Your task to perform on an android device: toggle javascript in the chrome app Image 0: 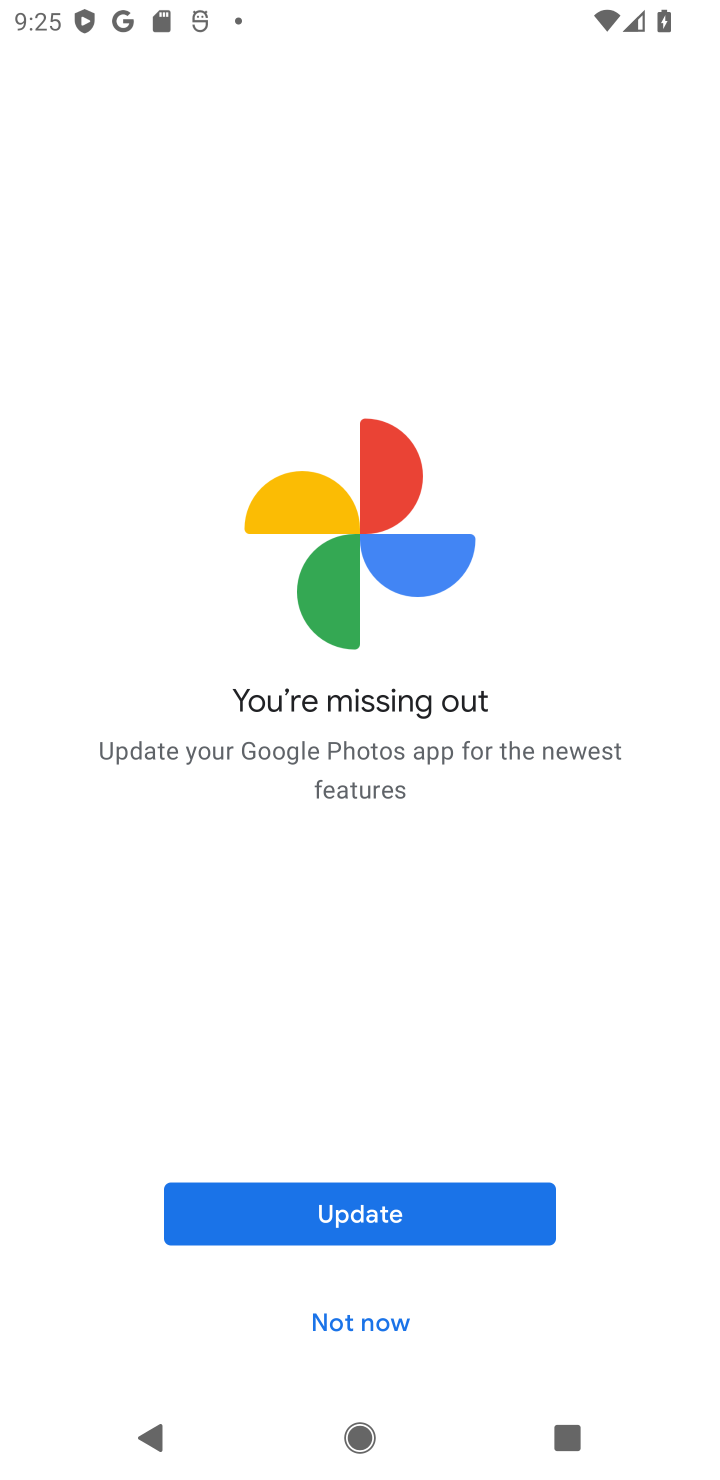
Step 0: press home button
Your task to perform on an android device: toggle javascript in the chrome app Image 1: 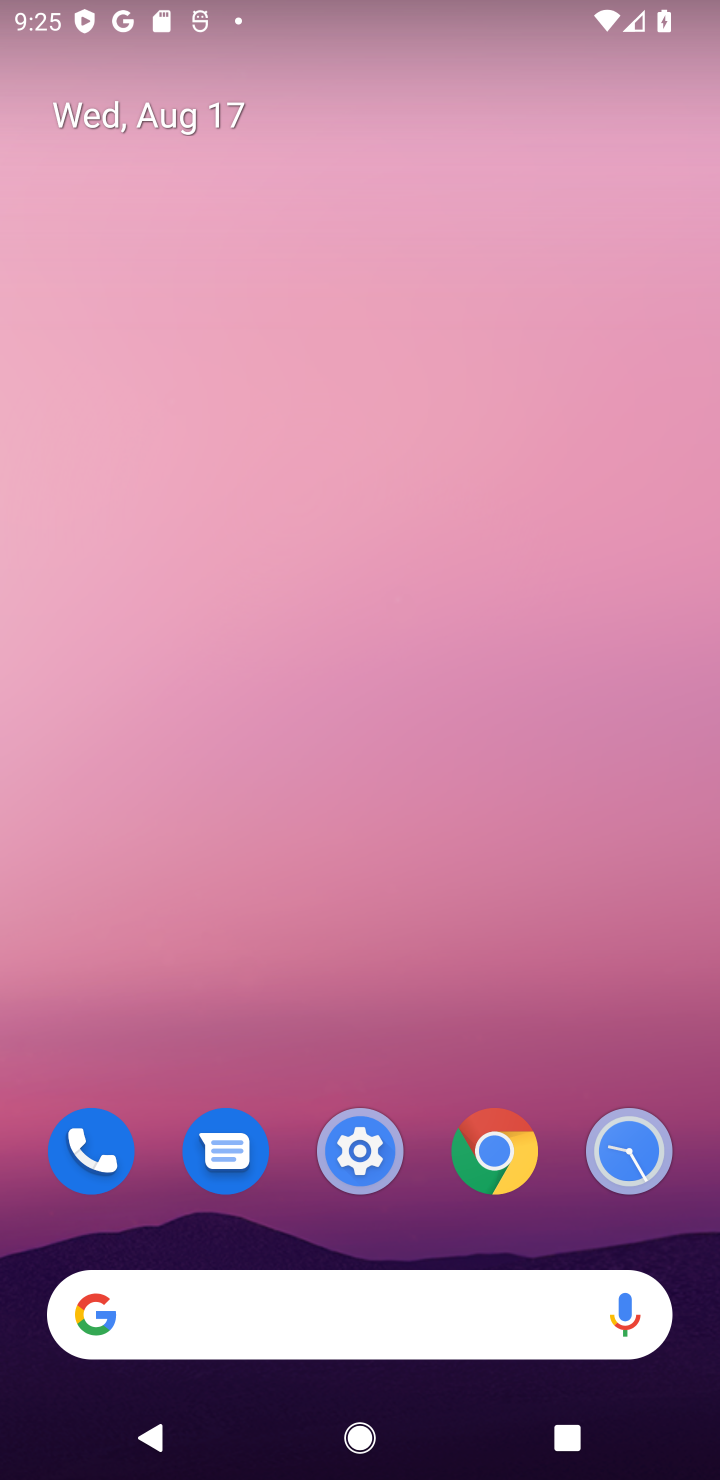
Step 1: click (491, 1153)
Your task to perform on an android device: toggle javascript in the chrome app Image 2: 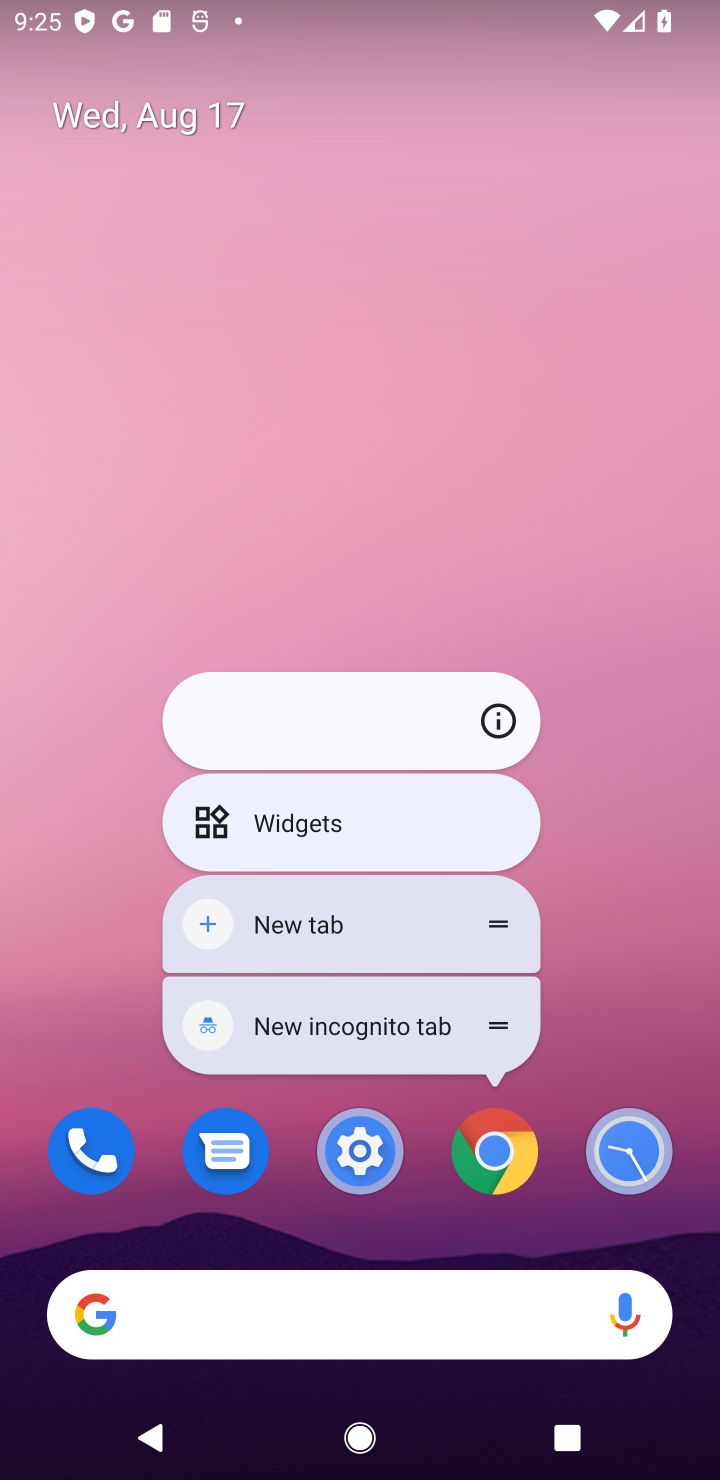
Step 2: click (497, 1160)
Your task to perform on an android device: toggle javascript in the chrome app Image 3: 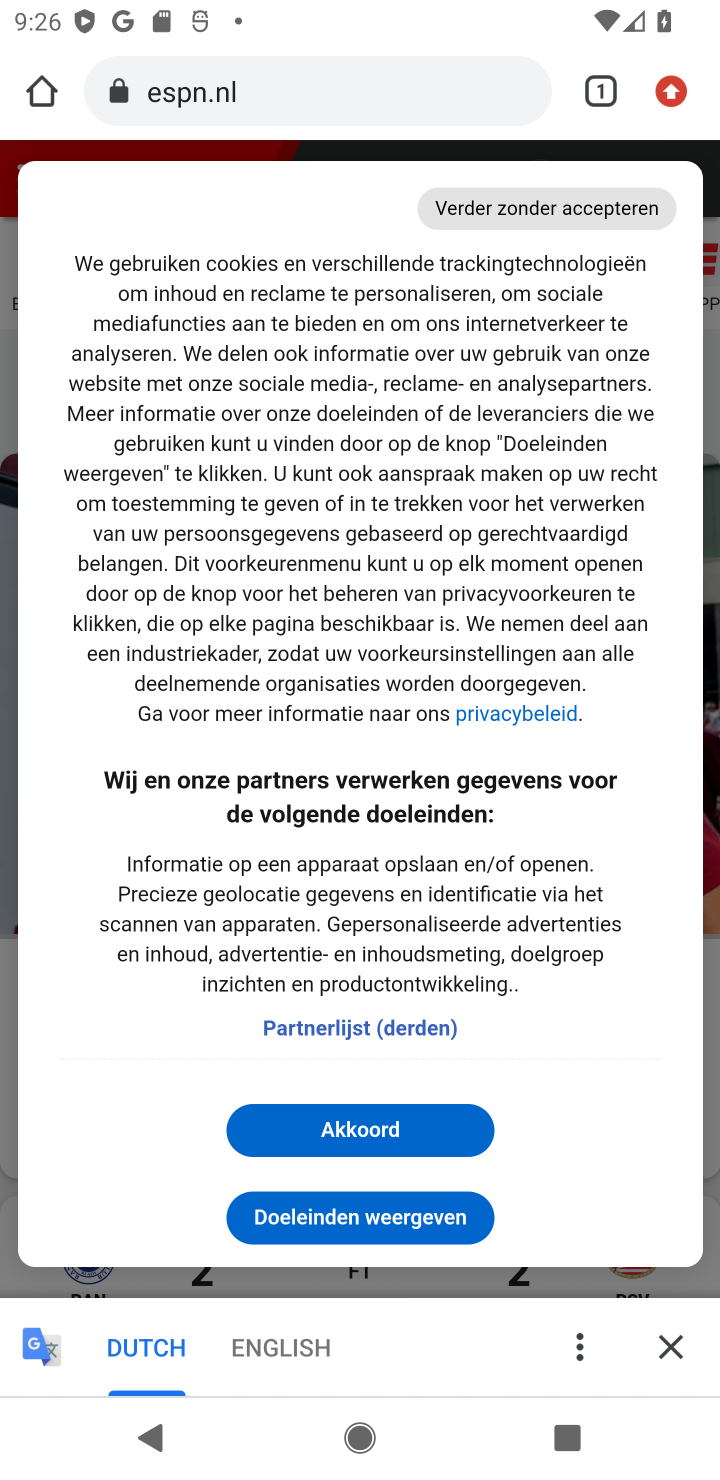
Step 3: click (671, 89)
Your task to perform on an android device: toggle javascript in the chrome app Image 4: 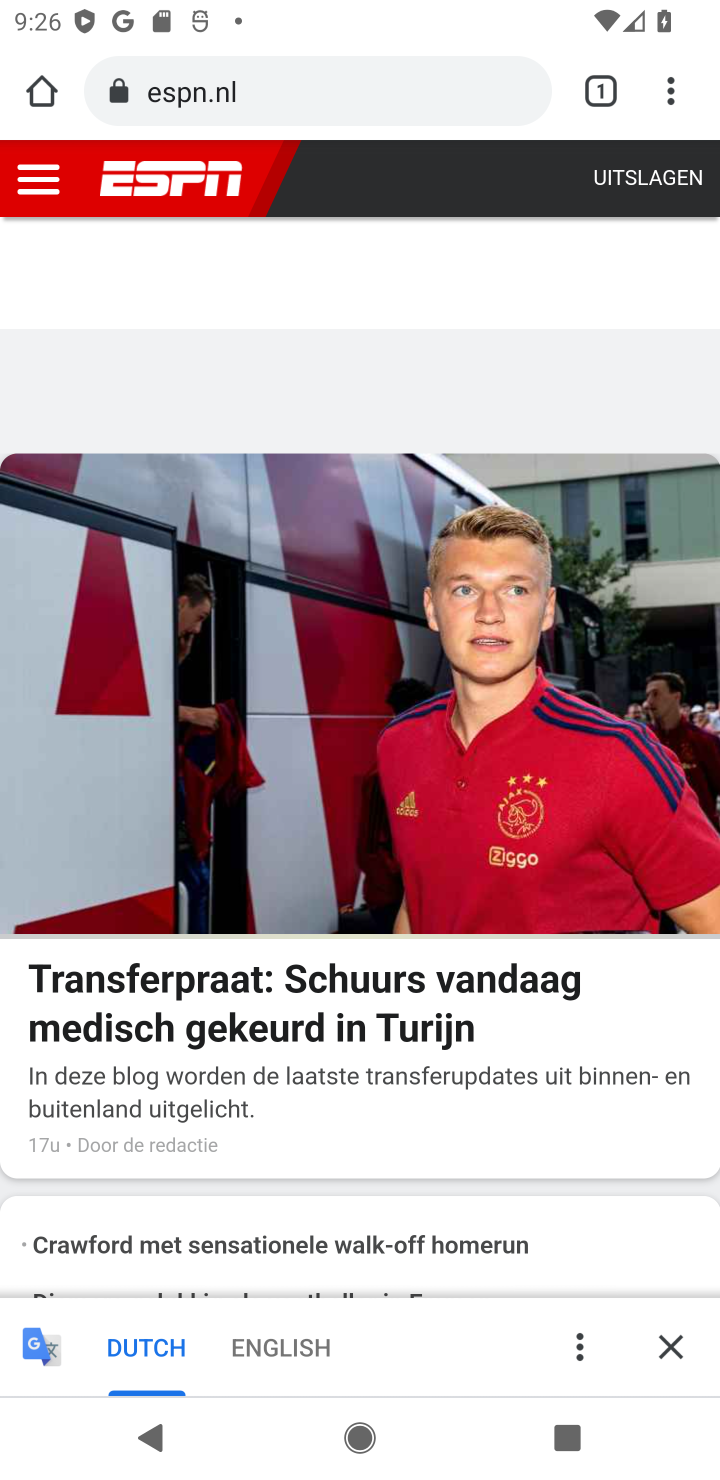
Step 4: click (671, 89)
Your task to perform on an android device: toggle javascript in the chrome app Image 5: 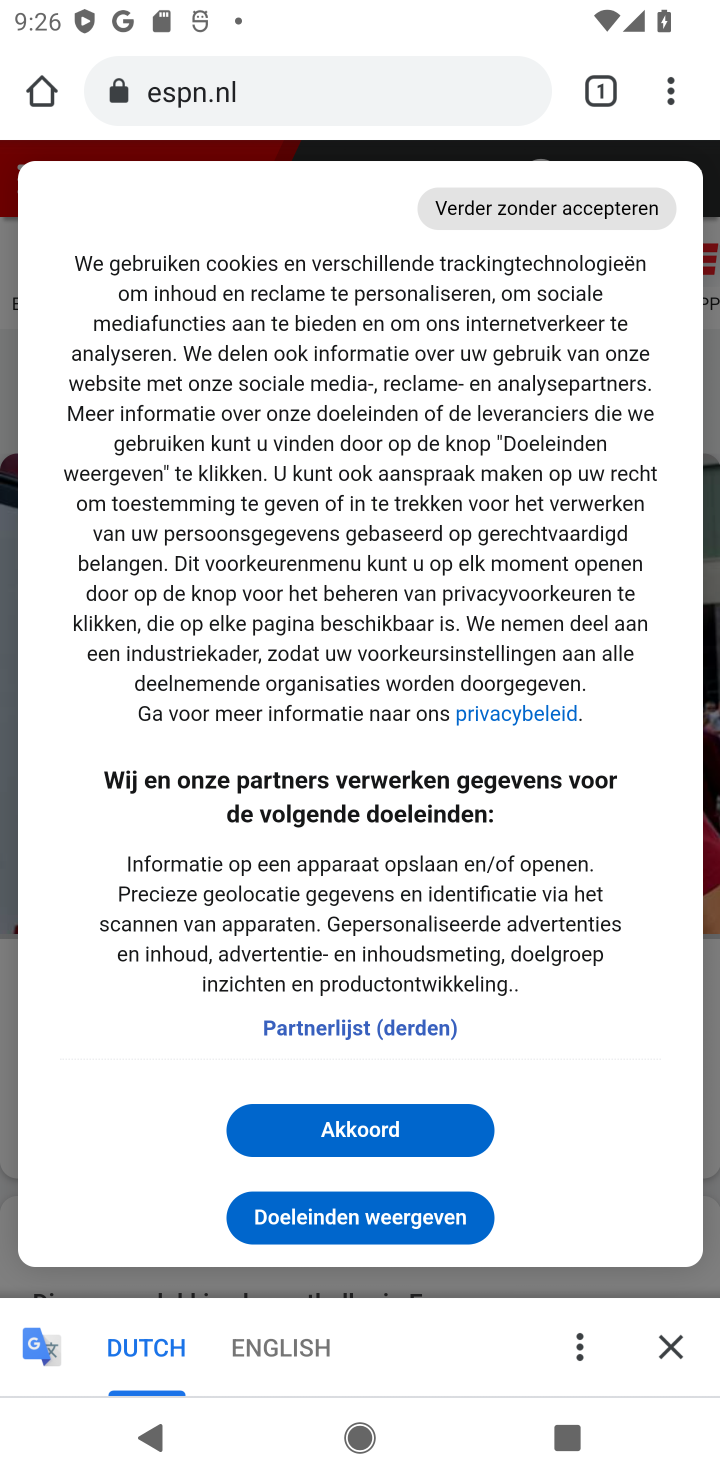
Step 5: click (671, 89)
Your task to perform on an android device: toggle javascript in the chrome app Image 6: 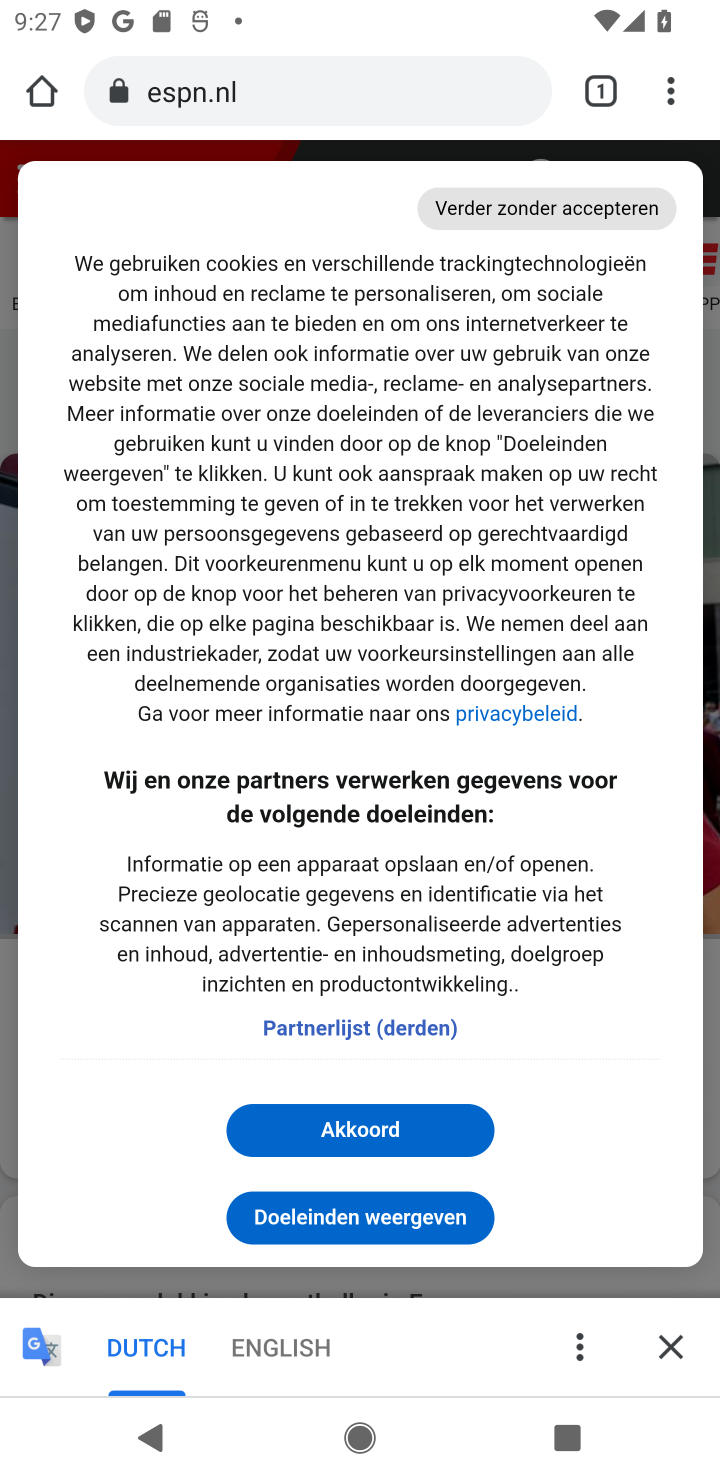
Step 6: press home button
Your task to perform on an android device: toggle javascript in the chrome app Image 7: 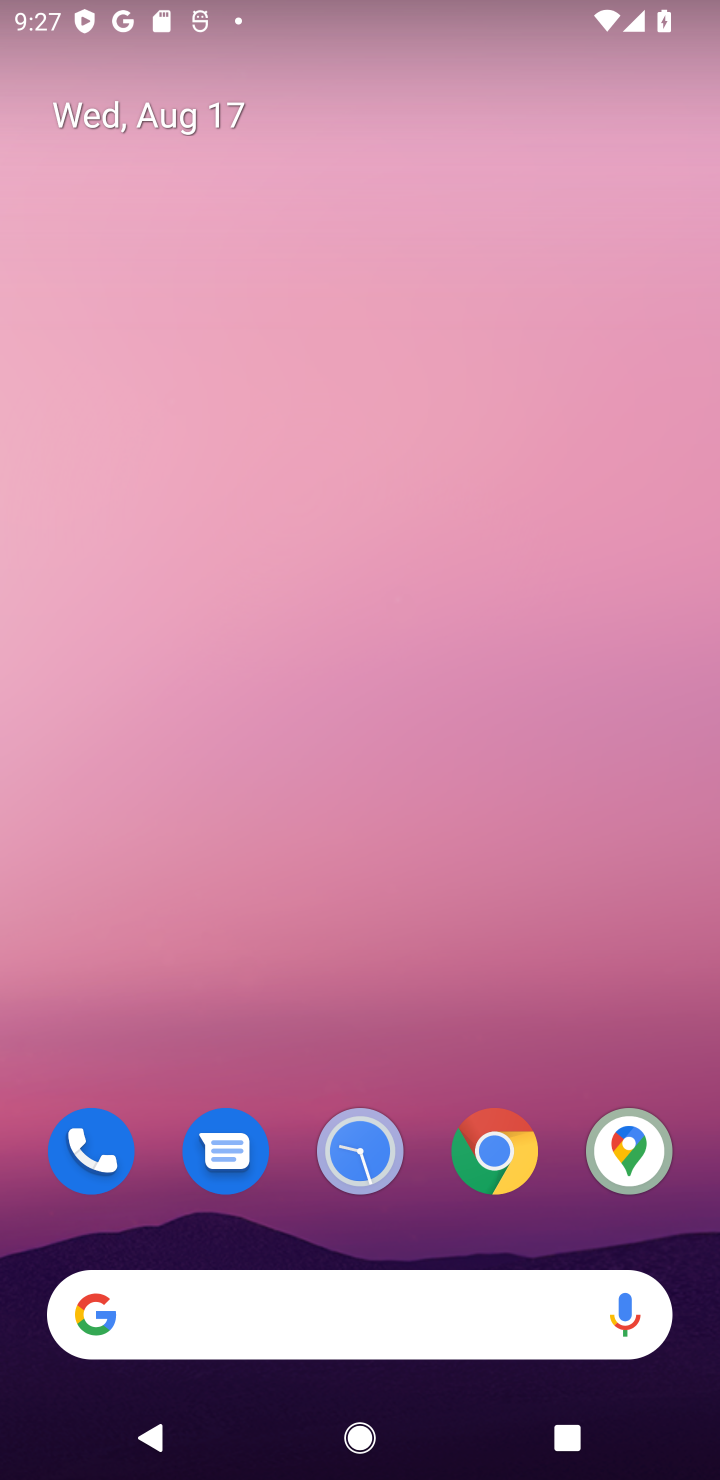
Step 7: click (493, 1150)
Your task to perform on an android device: toggle javascript in the chrome app Image 8: 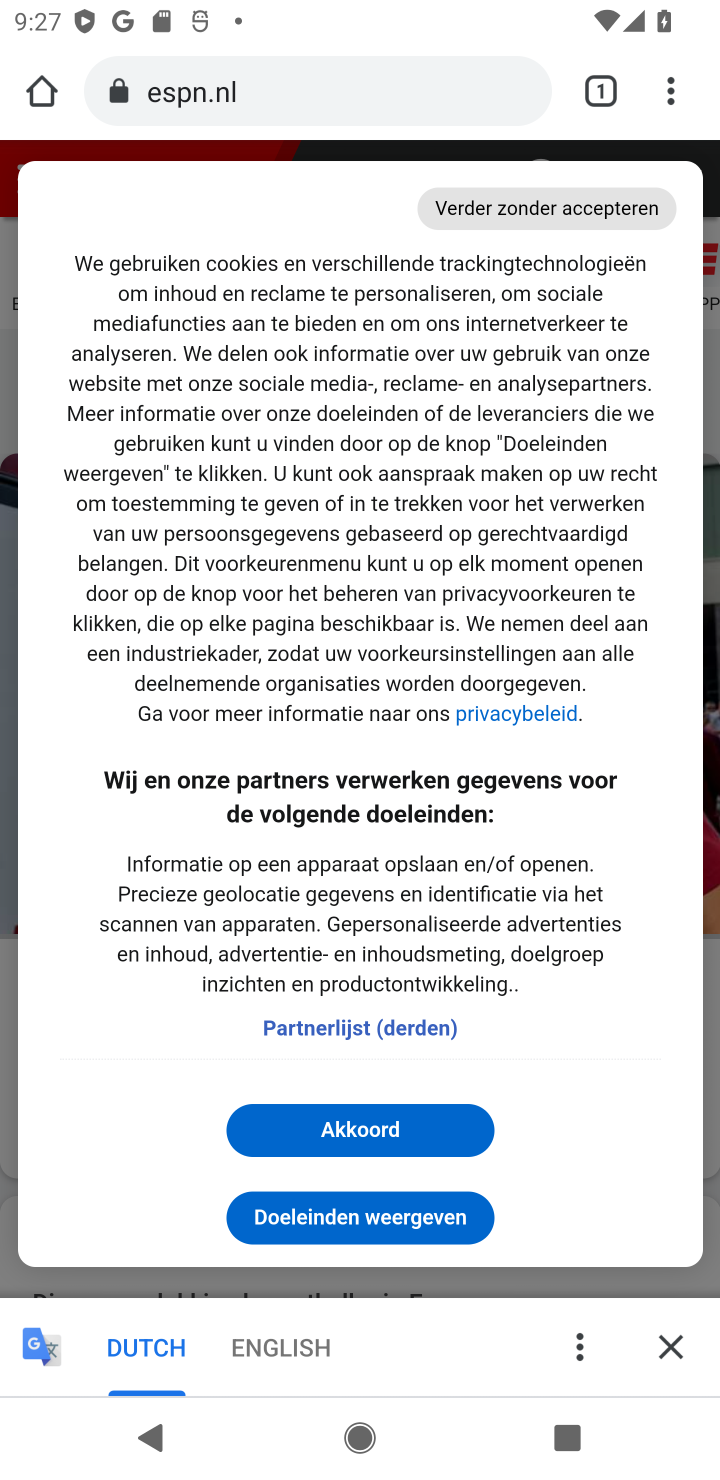
Step 8: click (666, 92)
Your task to perform on an android device: toggle javascript in the chrome app Image 9: 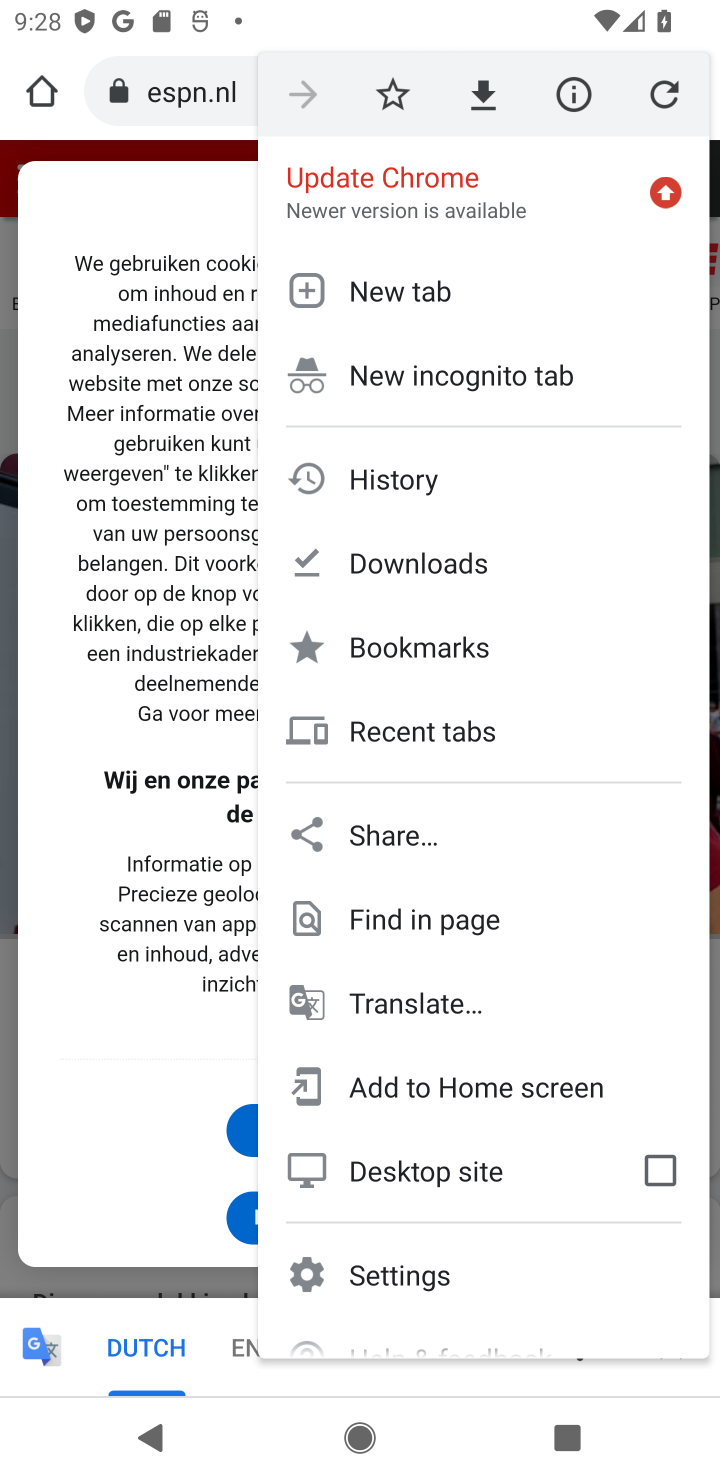
Step 9: click (386, 1268)
Your task to perform on an android device: toggle javascript in the chrome app Image 10: 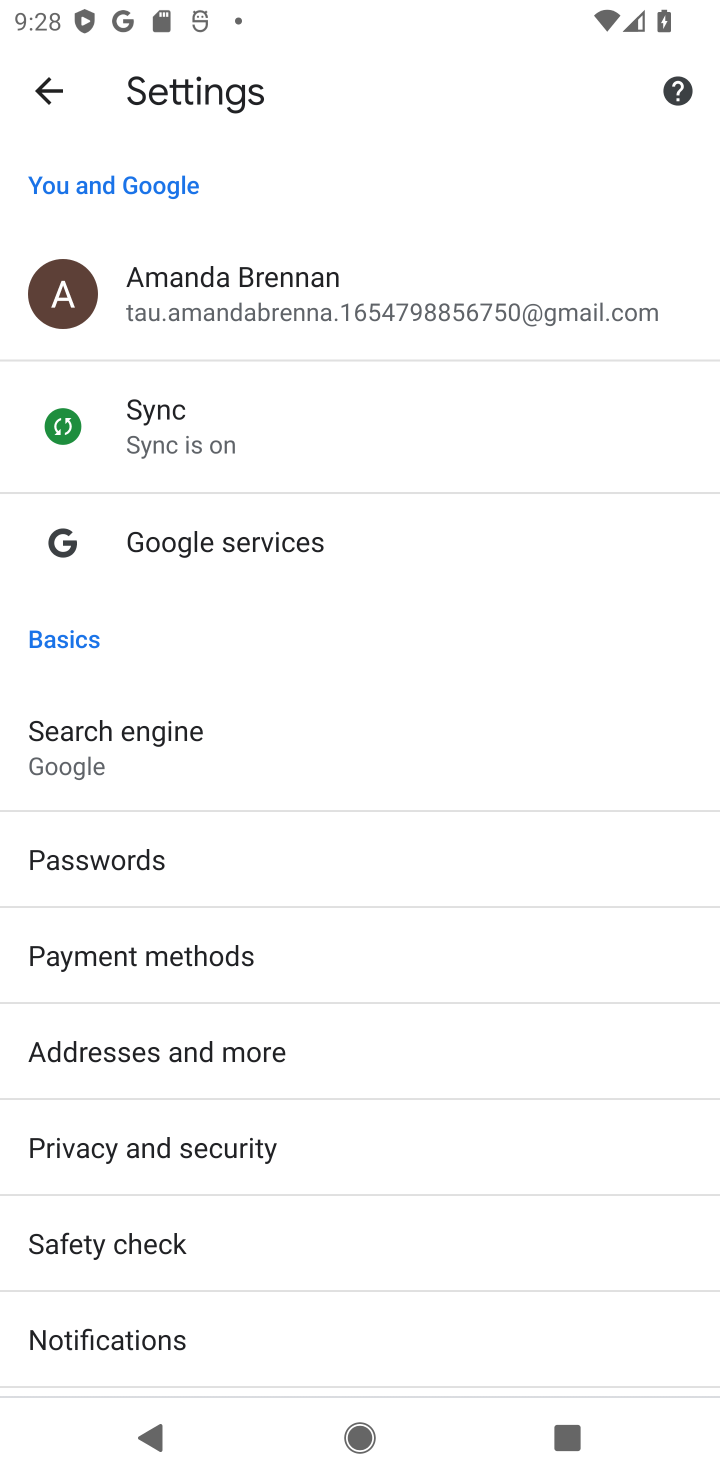
Step 10: drag from (291, 1231) to (325, 211)
Your task to perform on an android device: toggle javascript in the chrome app Image 11: 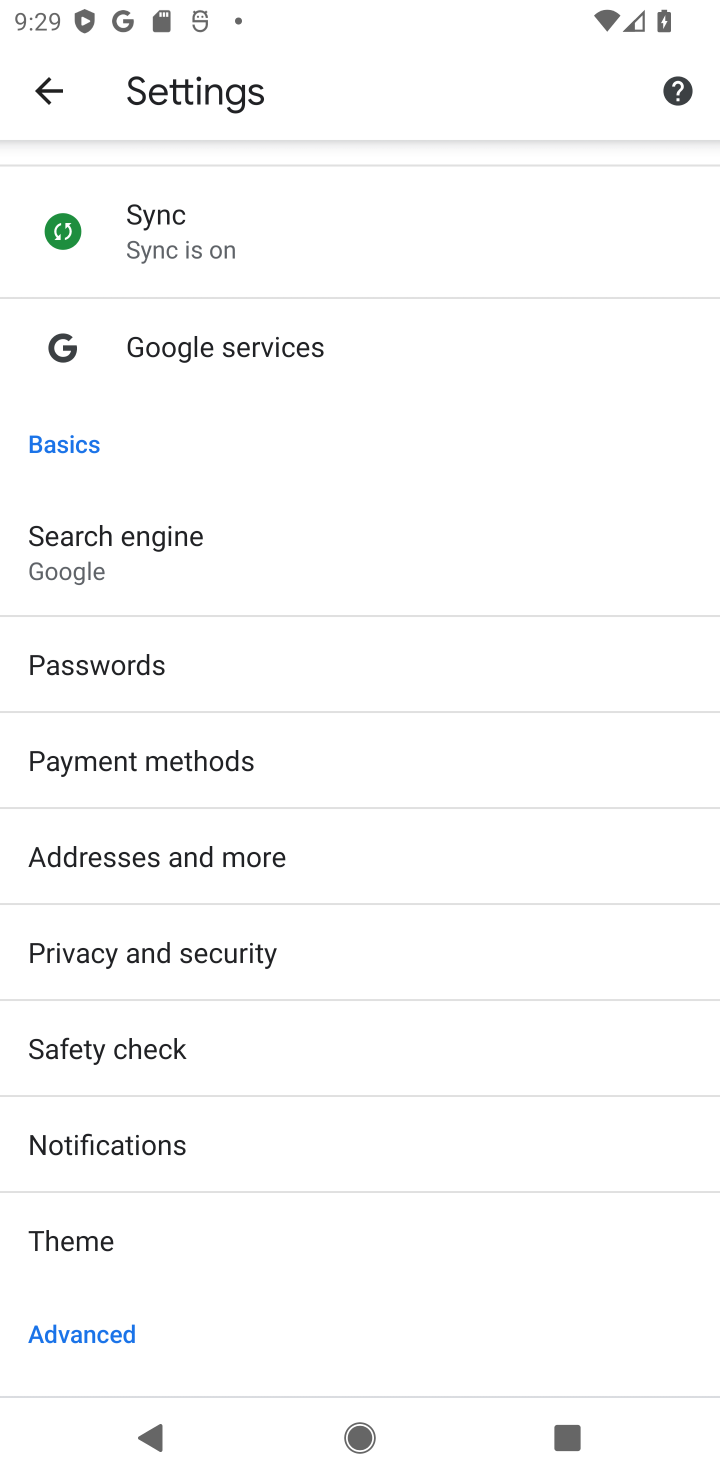
Step 11: drag from (273, 796) to (286, 515)
Your task to perform on an android device: toggle javascript in the chrome app Image 12: 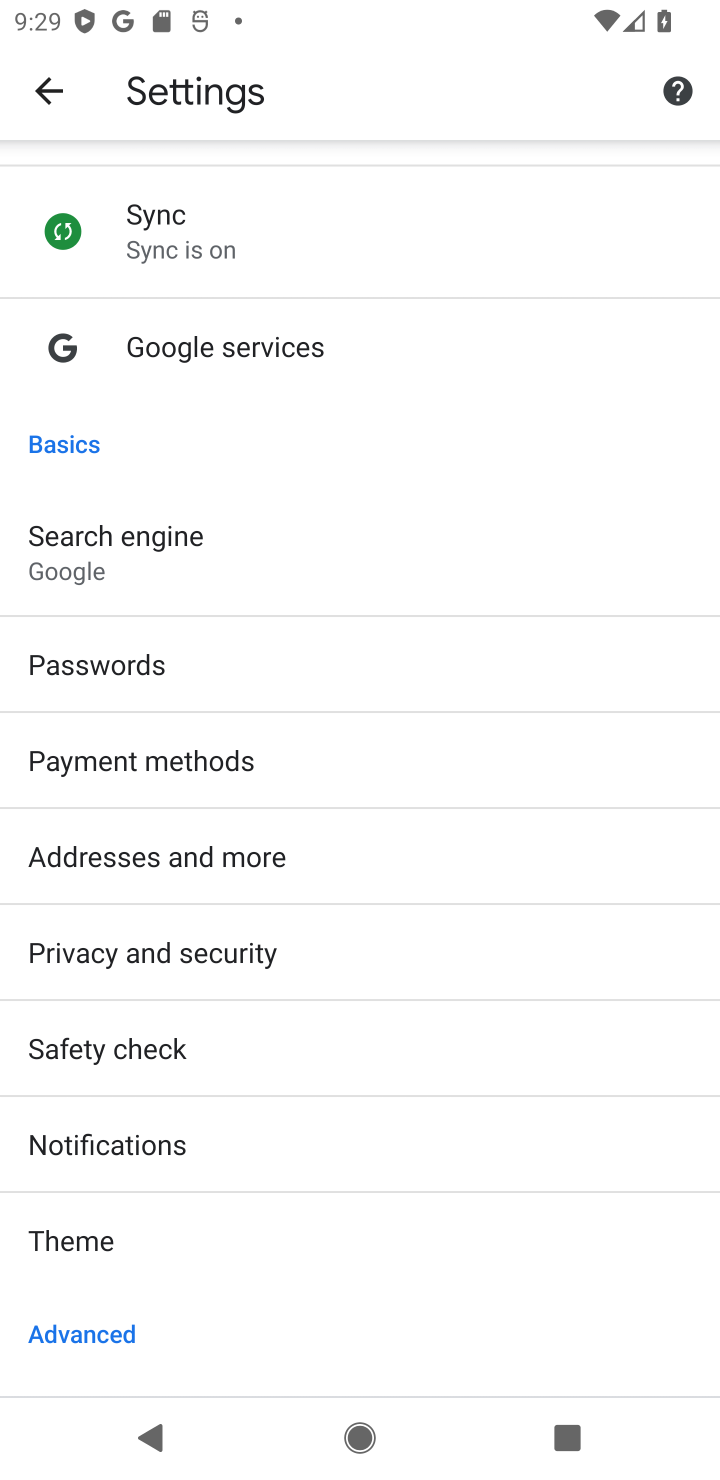
Step 12: drag from (227, 822) to (252, 342)
Your task to perform on an android device: toggle javascript in the chrome app Image 13: 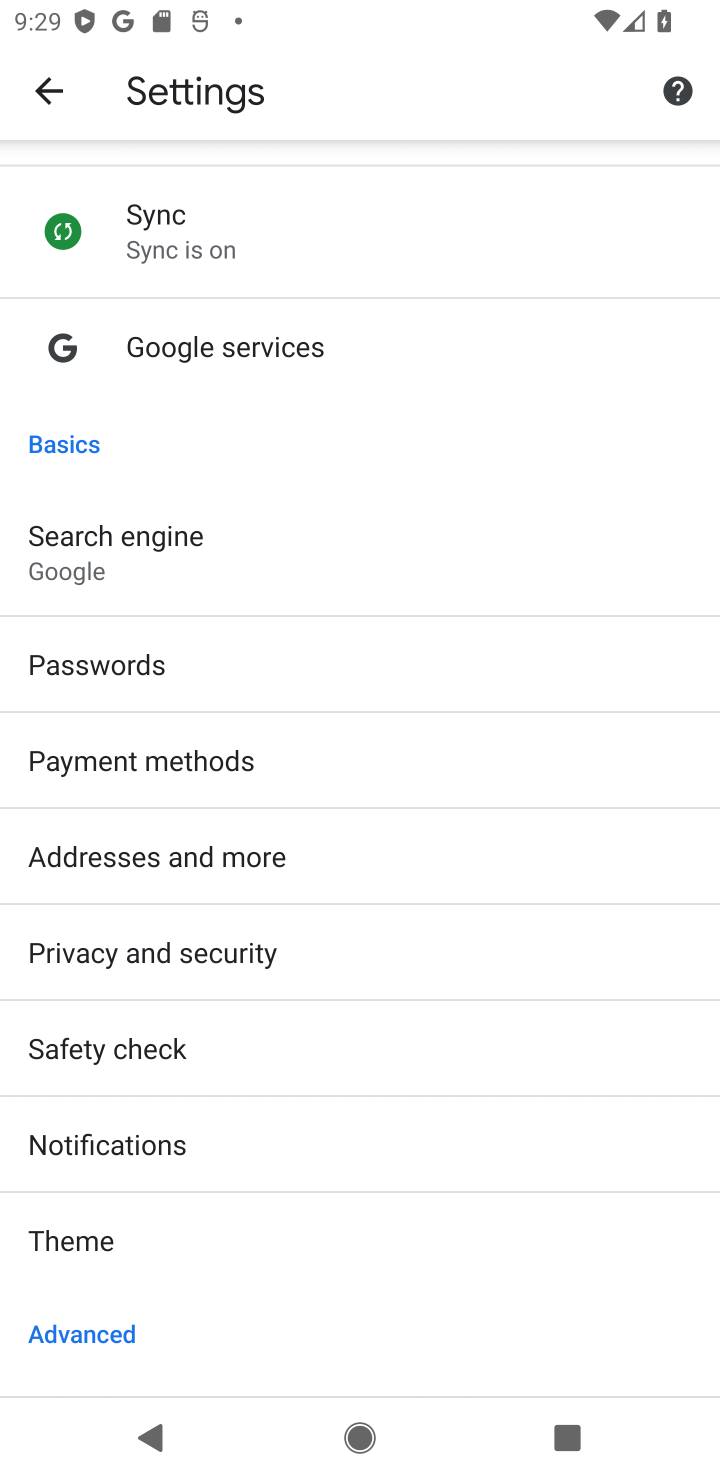
Step 13: drag from (140, 1262) to (257, 286)
Your task to perform on an android device: toggle javascript in the chrome app Image 14: 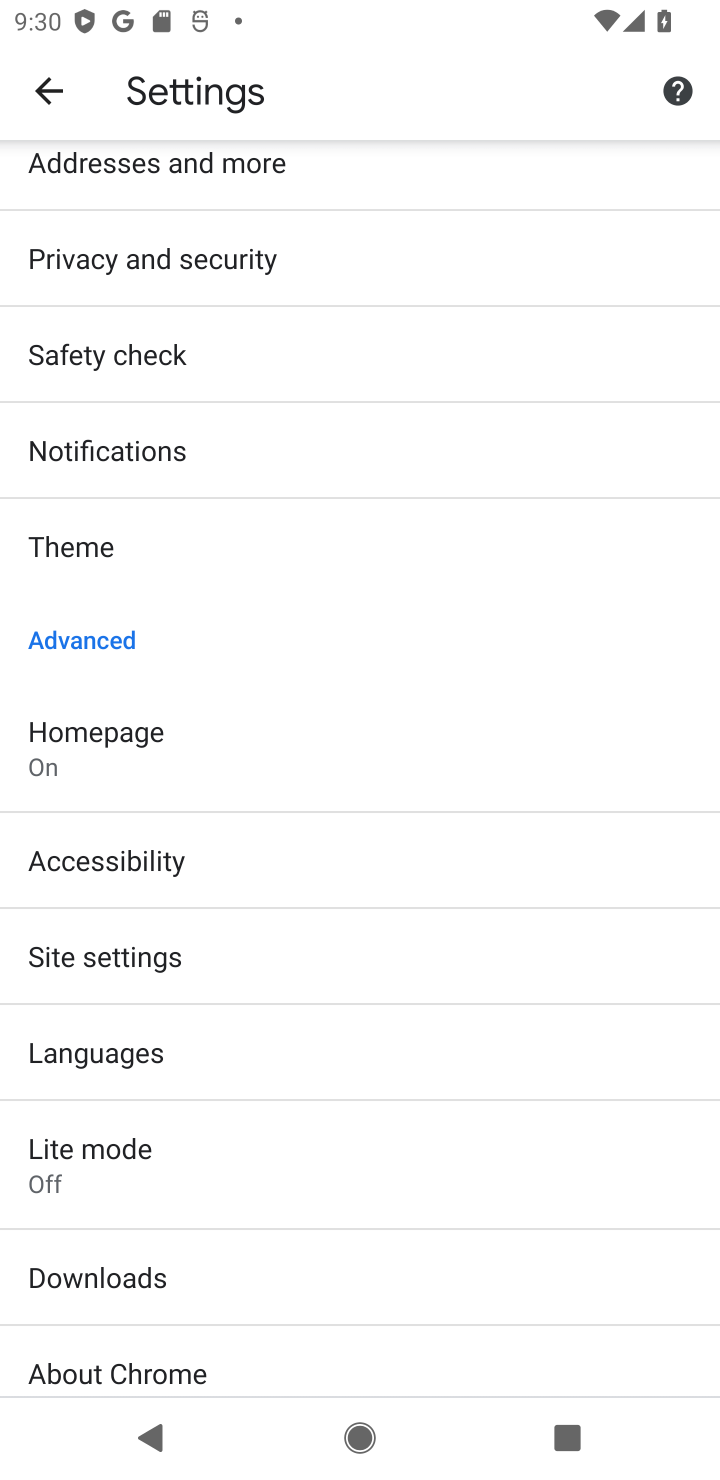
Step 14: click (143, 956)
Your task to perform on an android device: toggle javascript in the chrome app Image 15: 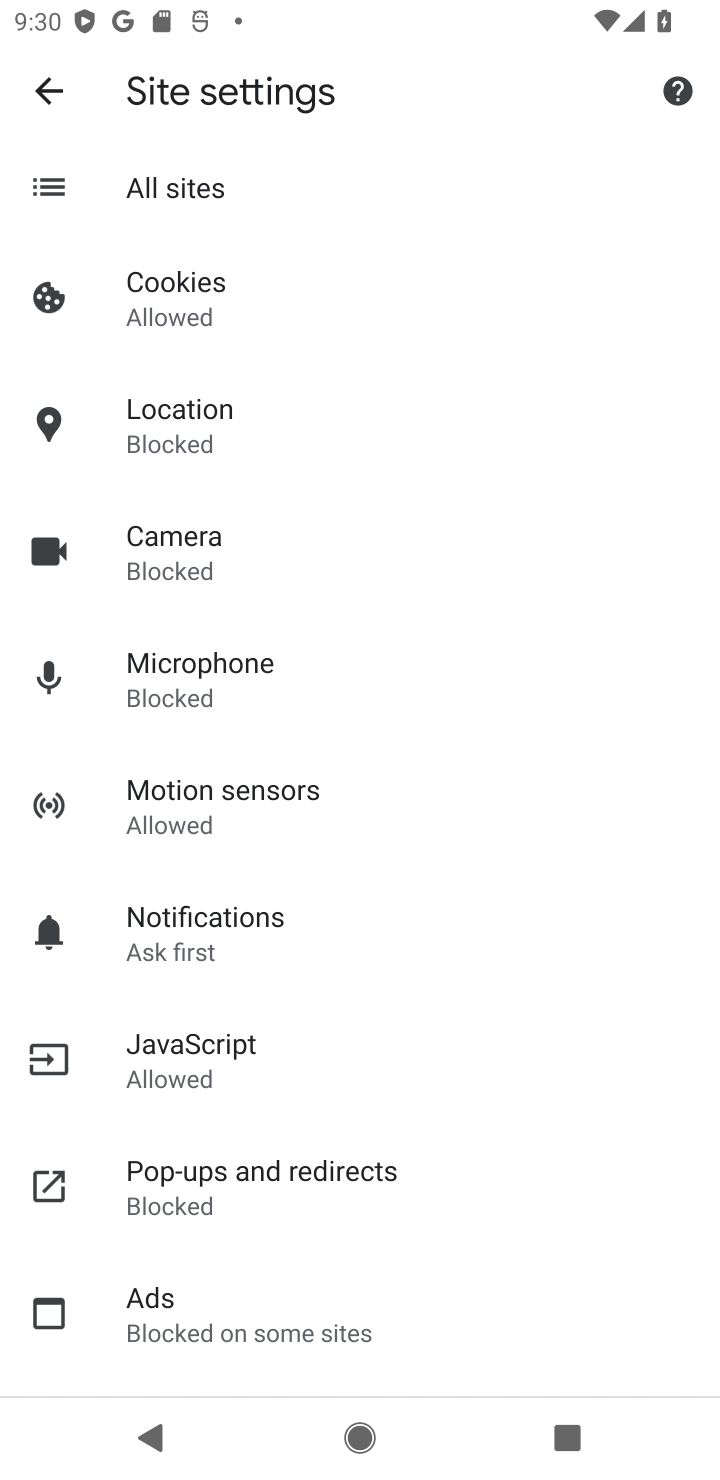
Step 15: click (190, 1043)
Your task to perform on an android device: toggle javascript in the chrome app Image 16: 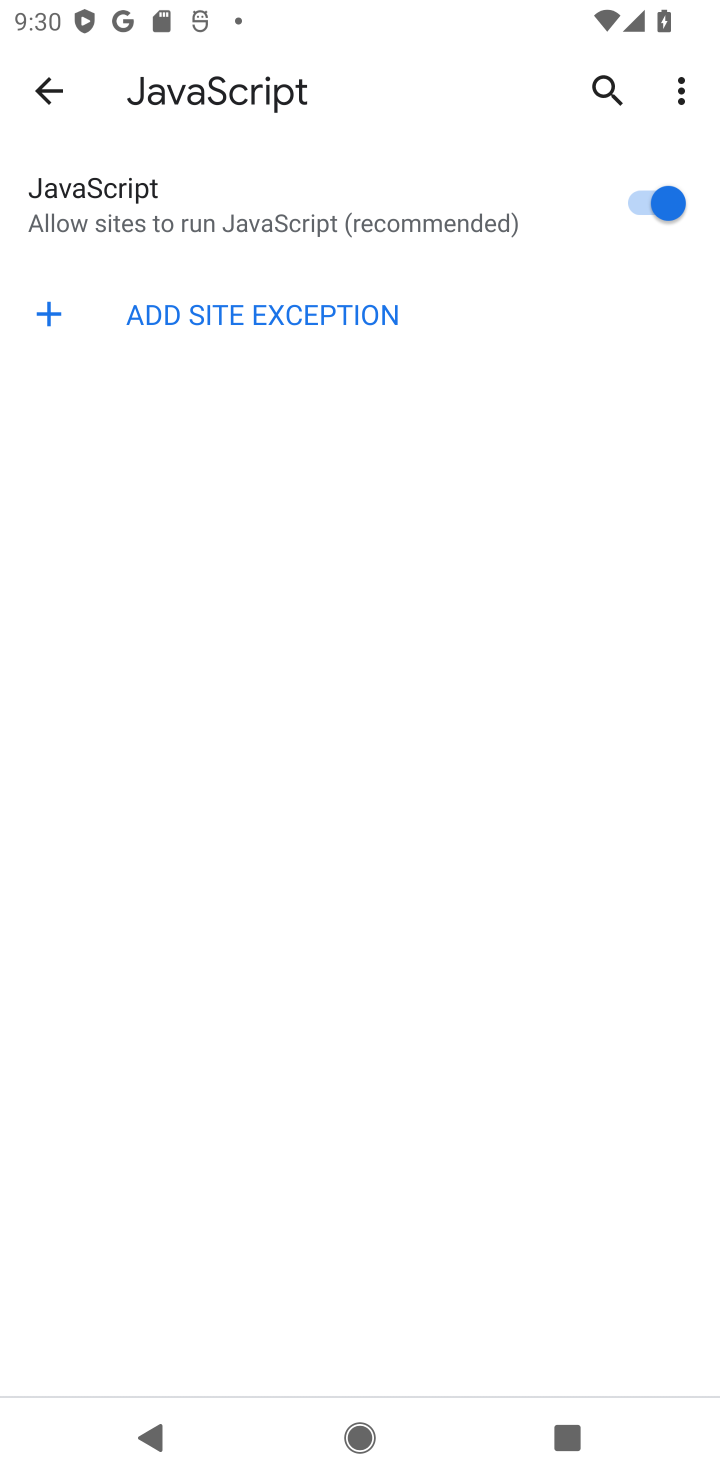
Step 16: click (622, 216)
Your task to perform on an android device: toggle javascript in the chrome app Image 17: 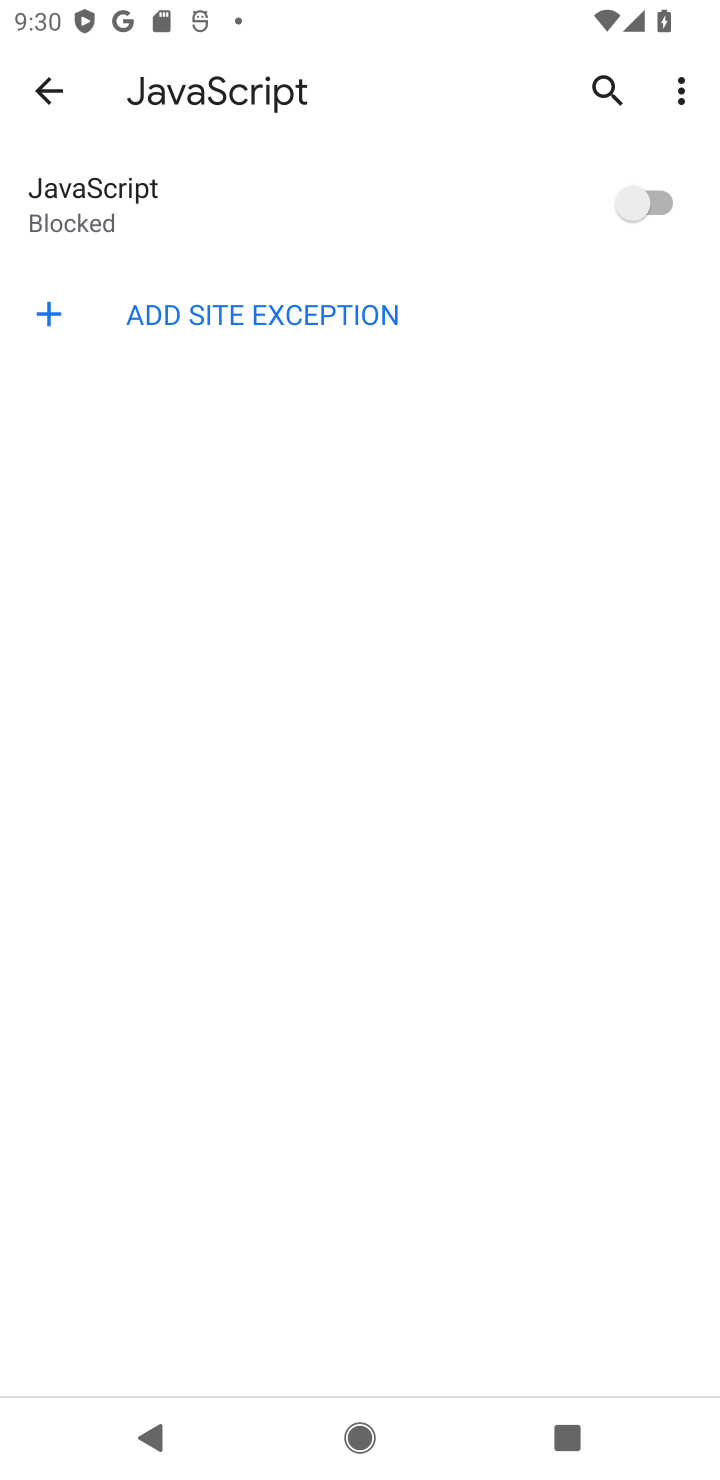
Step 17: task complete